Your task to perform on an android device: Open calendar and show me the third week of next month Image 0: 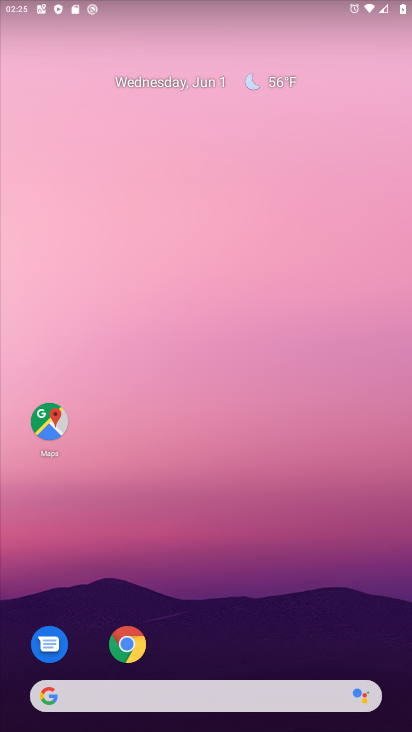
Step 0: drag from (198, 502) to (172, 163)
Your task to perform on an android device: Open calendar and show me the third week of next month Image 1: 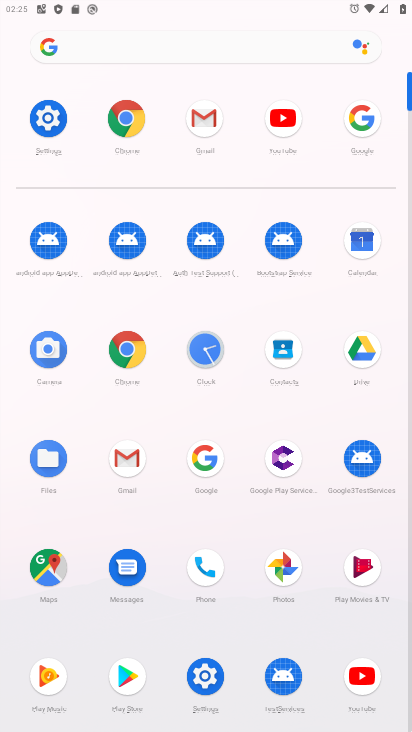
Step 1: click (365, 249)
Your task to perform on an android device: Open calendar and show me the third week of next month Image 2: 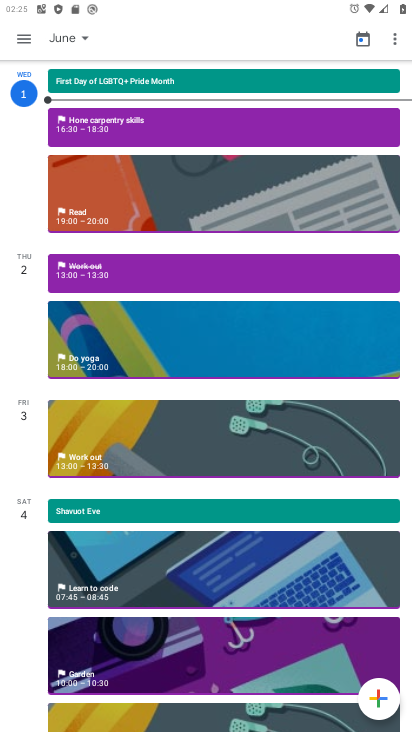
Step 2: click (96, 49)
Your task to perform on an android device: Open calendar and show me the third week of next month Image 3: 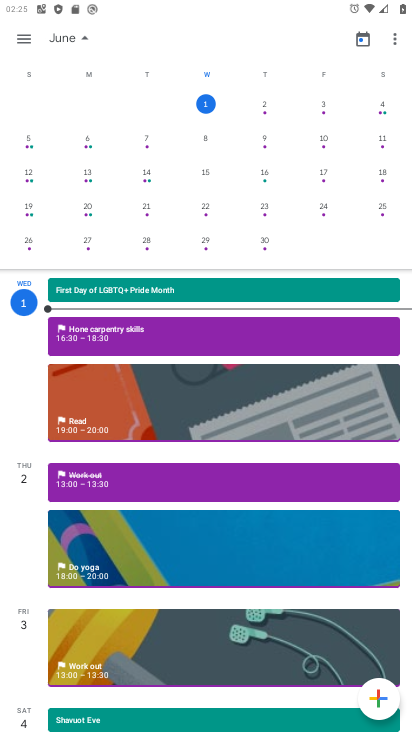
Step 3: drag from (348, 177) to (0, 225)
Your task to perform on an android device: Open calendar and show me the third week of next month Image 4: 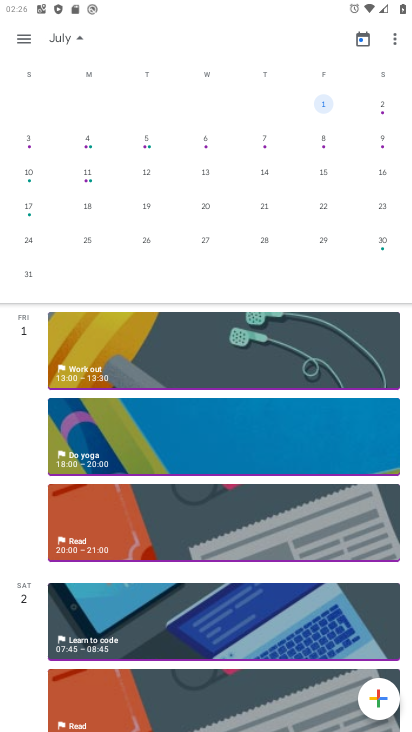
Step 4: click (33, 202)
Your task to perform on an android device: Open calendar and show me the third week of next month Image 5: 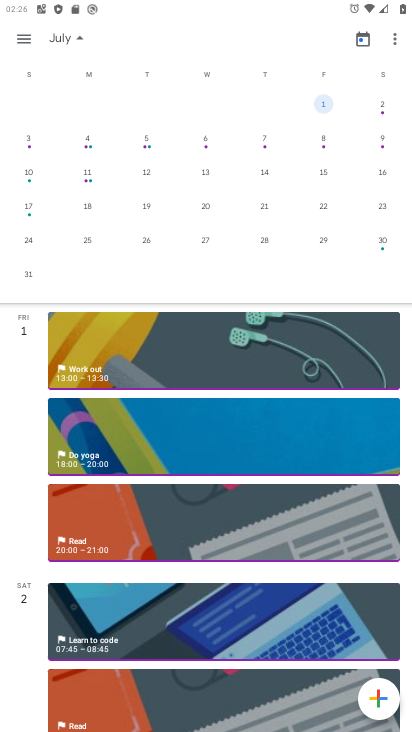
Step 5: click (34, 209)
Your task to perform on an android device: Open calendar and show me the third week of next month Image 6: 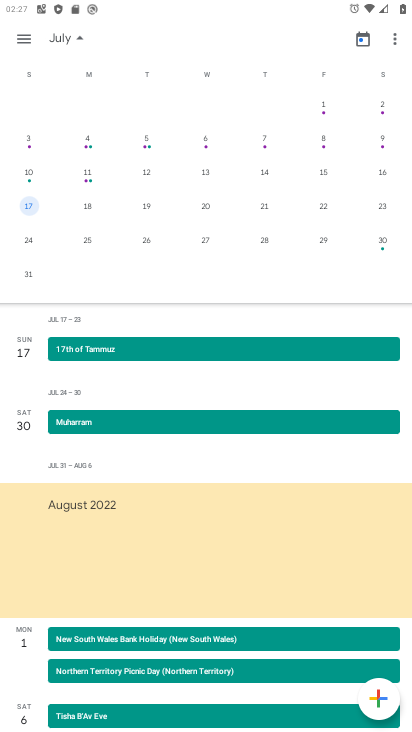
Step 6: task complete